Your task to perform on an android device: Check the news Image 0: 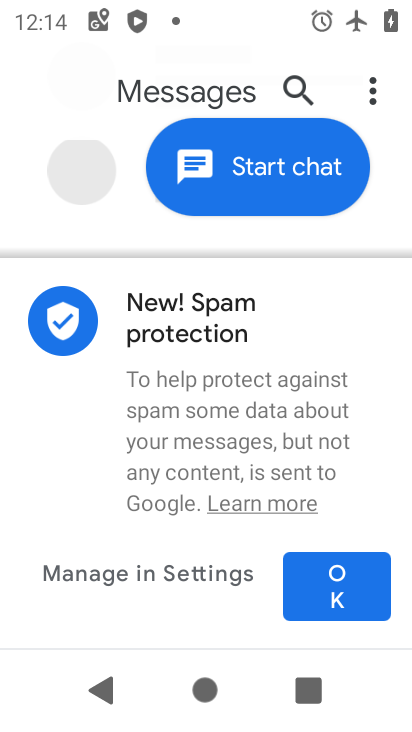
Step 0: press home button
Your task to perform on an android device: Check the news Image 1: 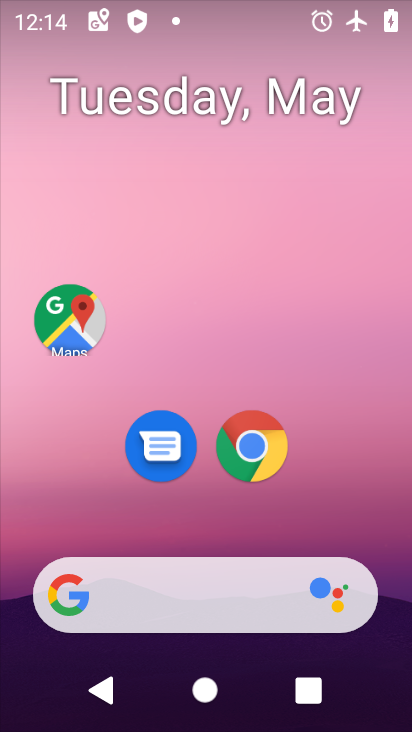
Step 1: drag from (305, 546) to (303, 173)
Your task to perform on an android device: Check the news Image 2: 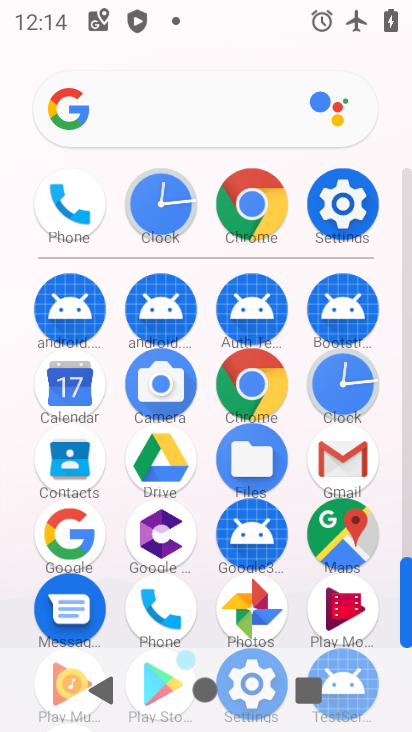
Step 2: click (265, 189)
Your task to perform on an android device: Check the news Image 3: 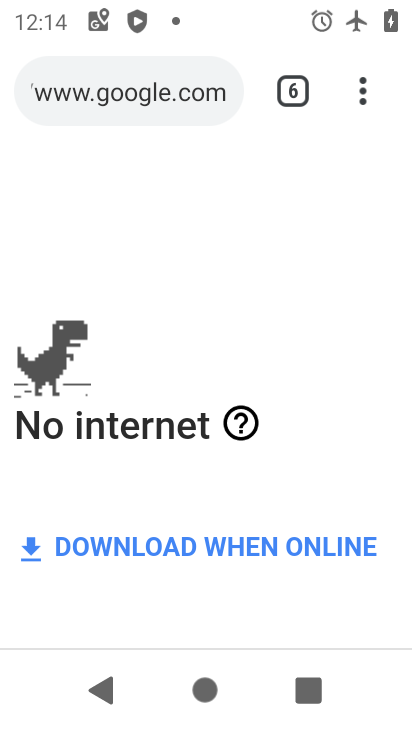
Step 3: click (361, 95)
Your task to perform on an android device: Check the news Image 4: 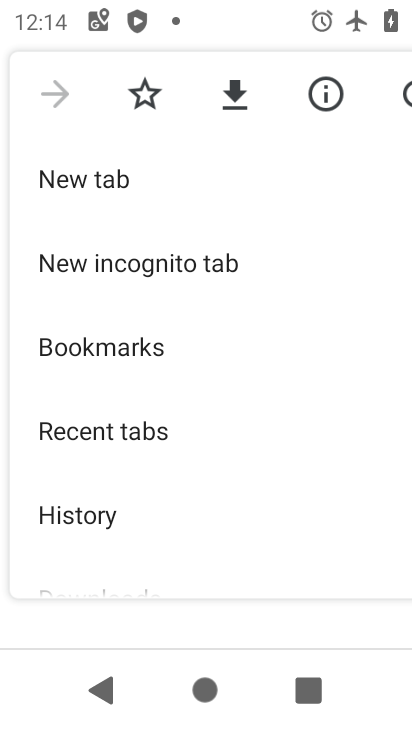
Step 4: click (103, 184)
Your task to perform on an android device: Check the news Image 5: 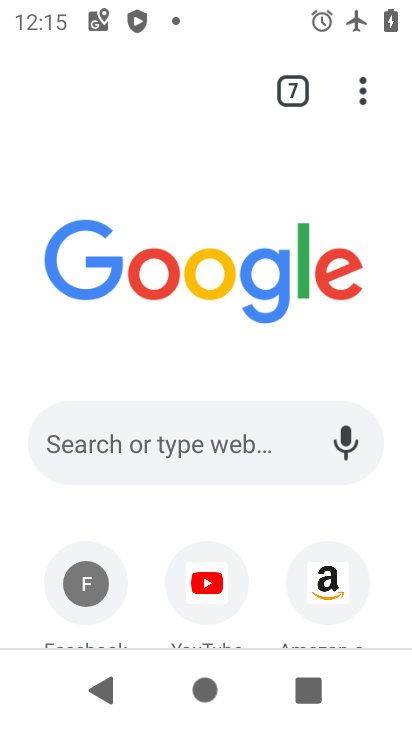
Step 5: click (191, 445)
Your task to perform on an android device: Check the news Image 6: 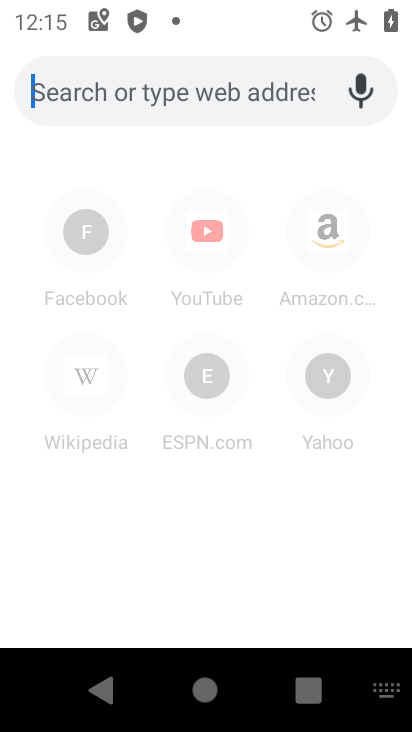
Step 6: type "Check the news"
Your task to perform on an android device: Check the news Image 7: 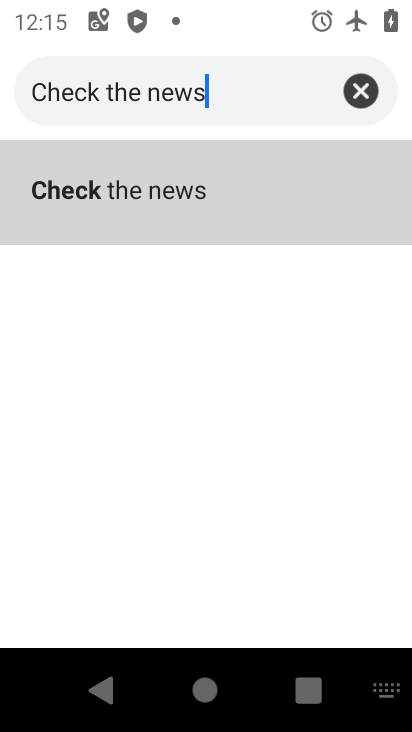
Step 7: click (208, 210)
Your task to perform on an android device: Check the news Image 8: 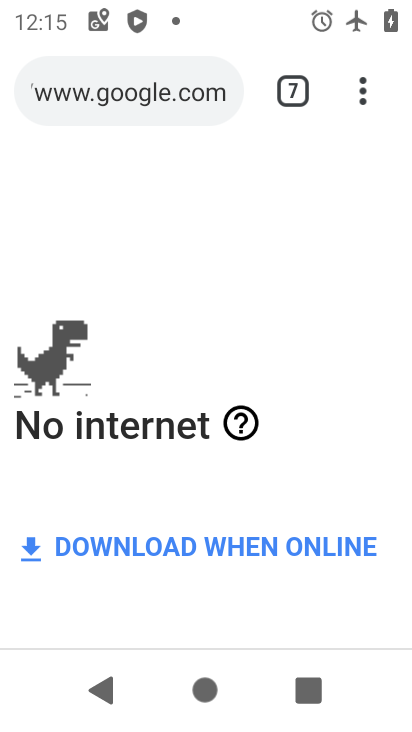
Step 8: task complete